Your task to perform on an android device: Empty the shopping cart on ebay. Search for "dell xps" on ebay, select the first entry, add it to the cart, then select checkout. Image 0: 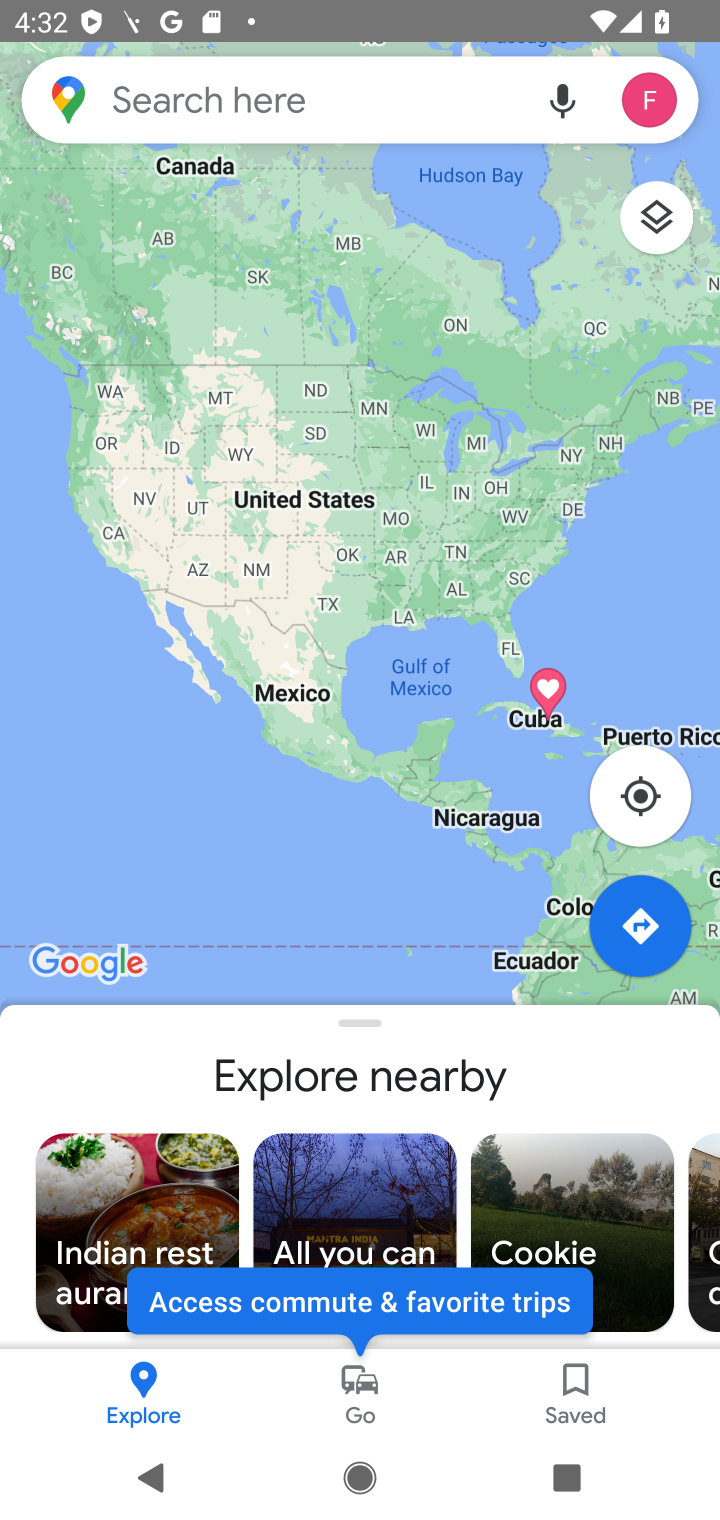
Step 0: press home button
Your task to perform on an android device: Empty the shopping cart on ebay. Search for "dell xps" on ebay, select the first entry, add it to the cart, then select checkout. Image 1: 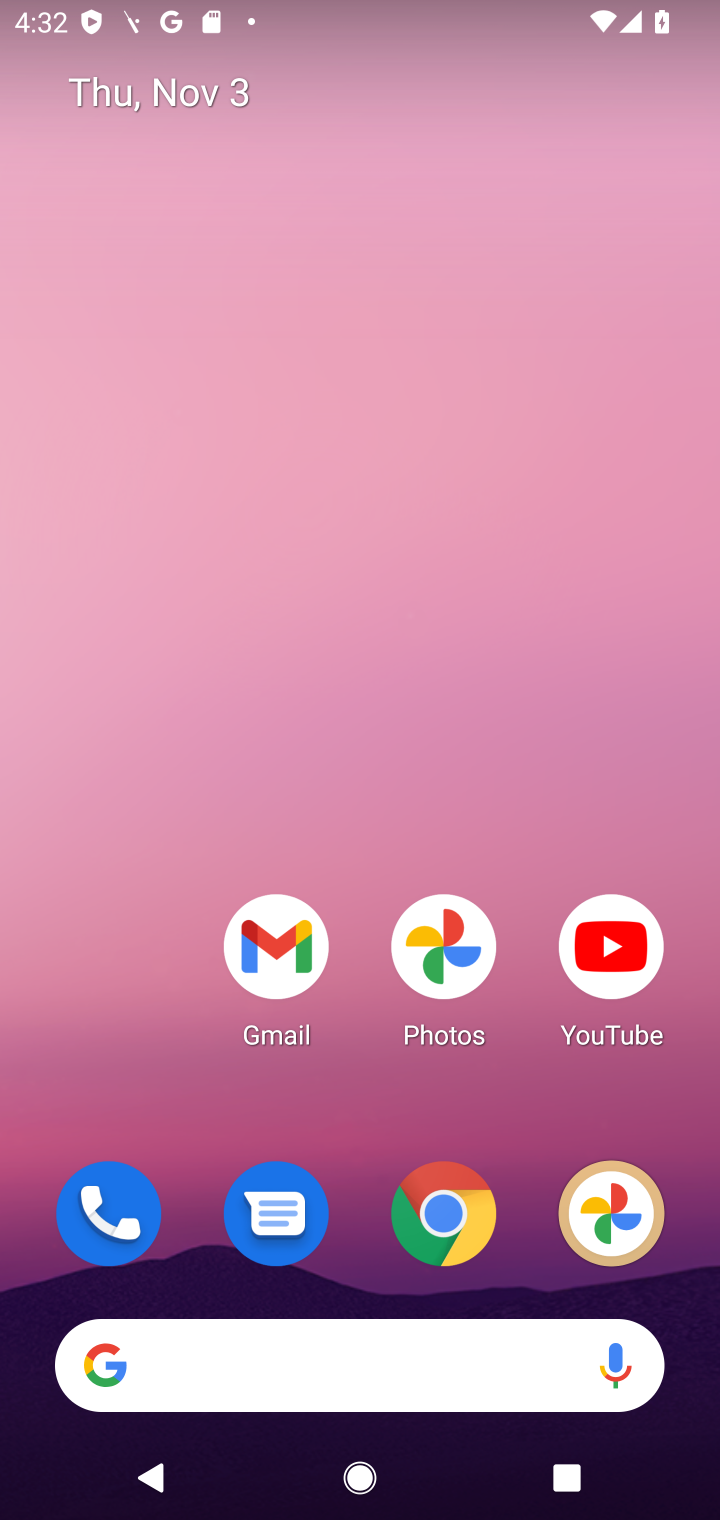
Step 1: click (434, 1213)
Your task to perform on an android device: Empty the shopping cart on ebay. Search for "dell xps" on ebay, select the first entry, add it to the cart, then select checkout. Image 2: 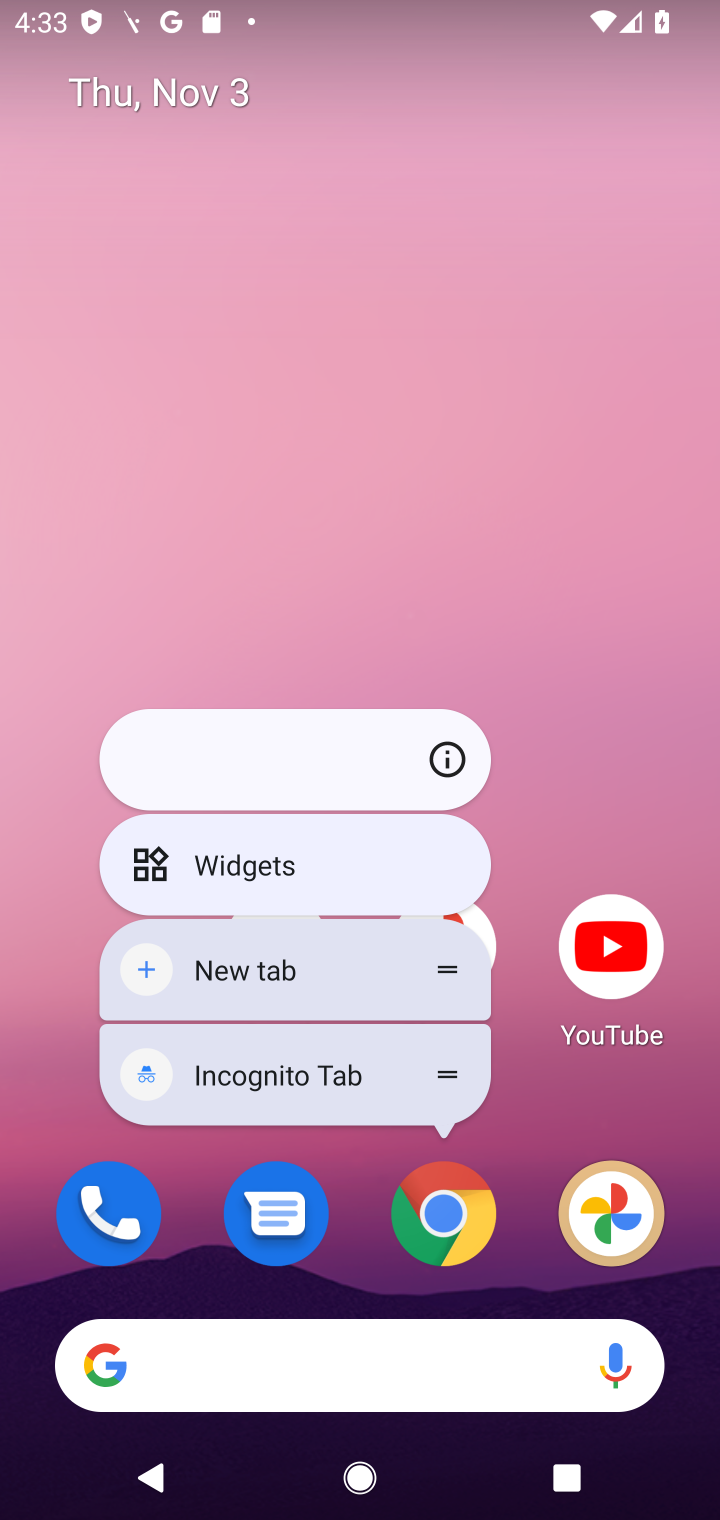
Step 2: click (447, 1229)
Your task to perform on an android device: Empty the shopping cart on ebay. Search for "dell xps" on ebay, select the first entry, add it to the cart, then select checkout. Image 3: 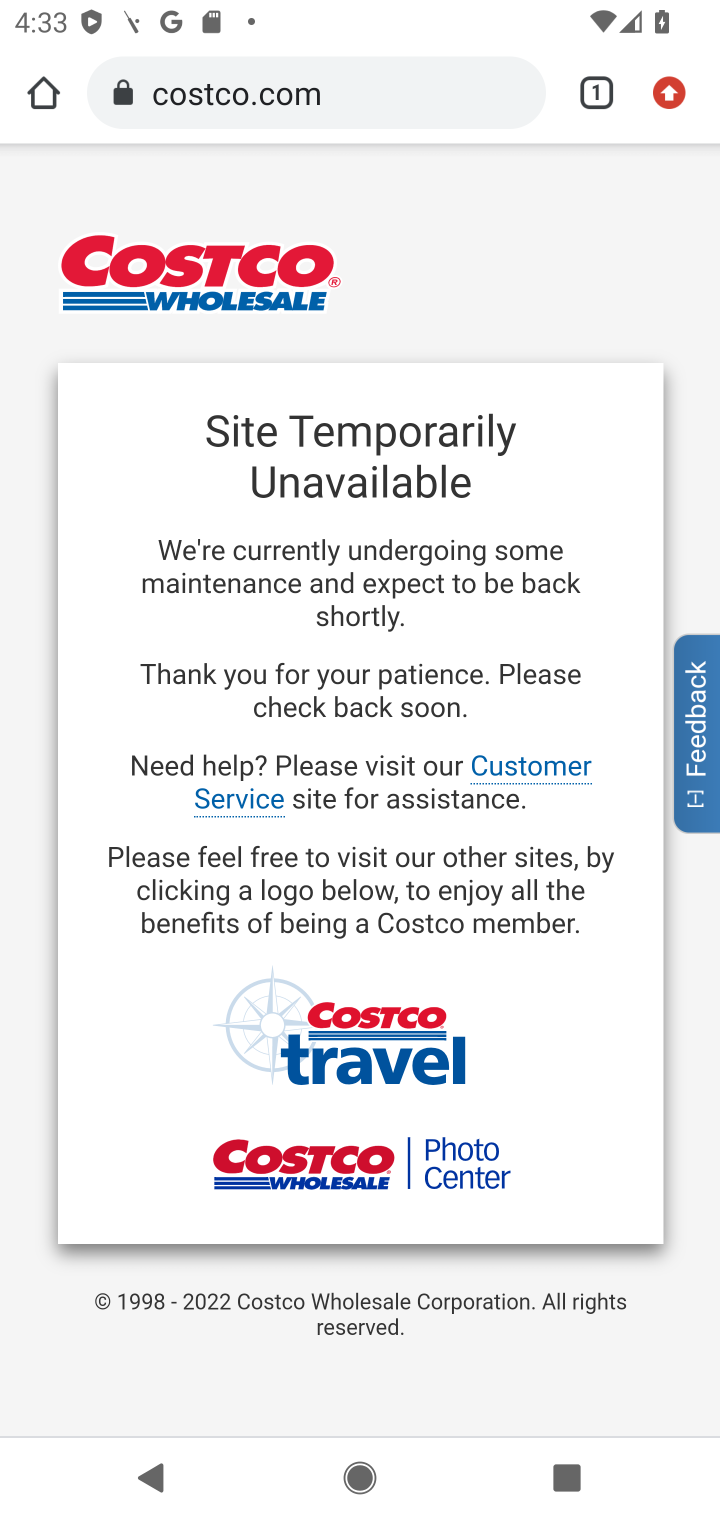
Step 3: click (359, 72)
Your task to perform on an android device: Empty the shopping cart on ebay. Search for "dell xps" on ebay, select the first entry, add it to the cart, then select checkout. Image 4: 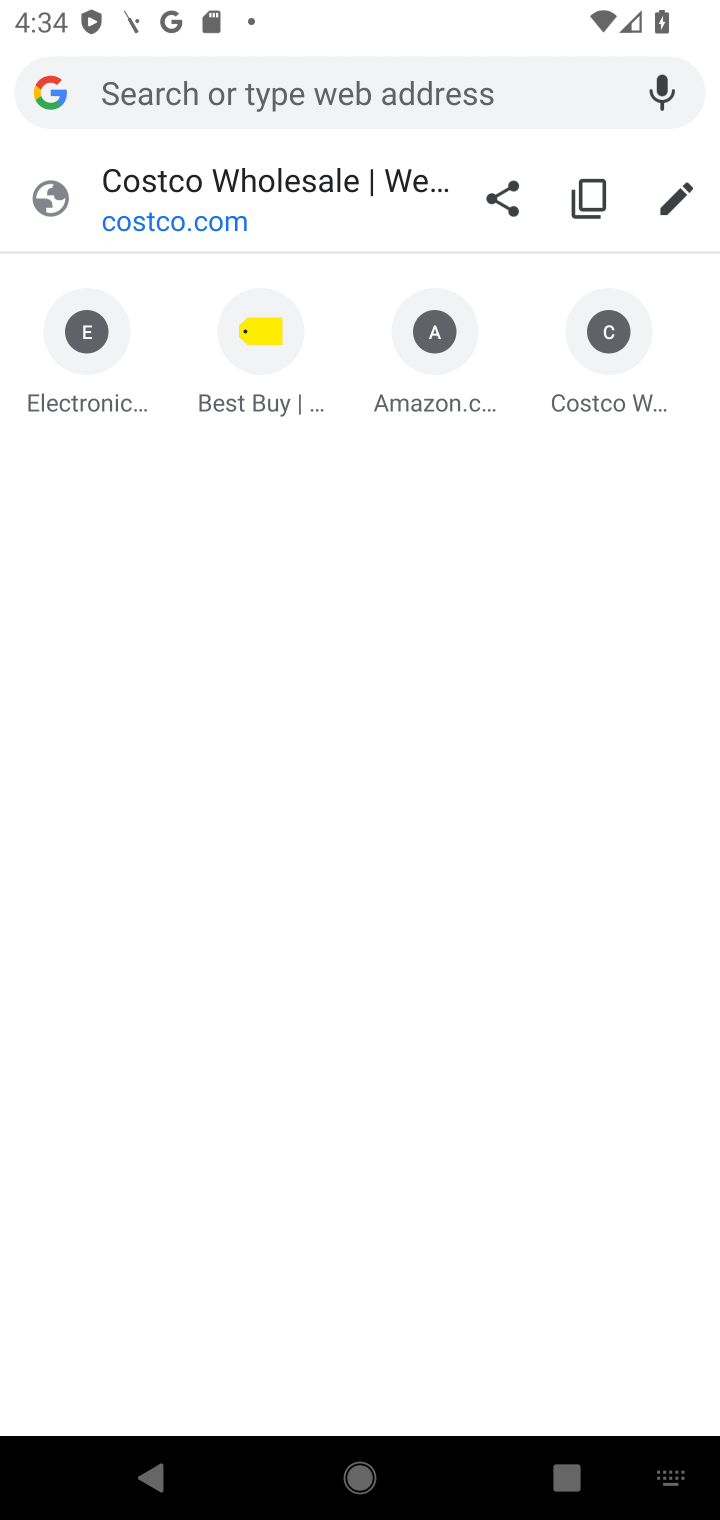
Step 4: type "ebay.com"
Your task to perform on an android device: Empty the shopping cart on ebay. Search for "dell xps" on ebay, select the first entry, add it to the cart, then select checkout. Image 5: 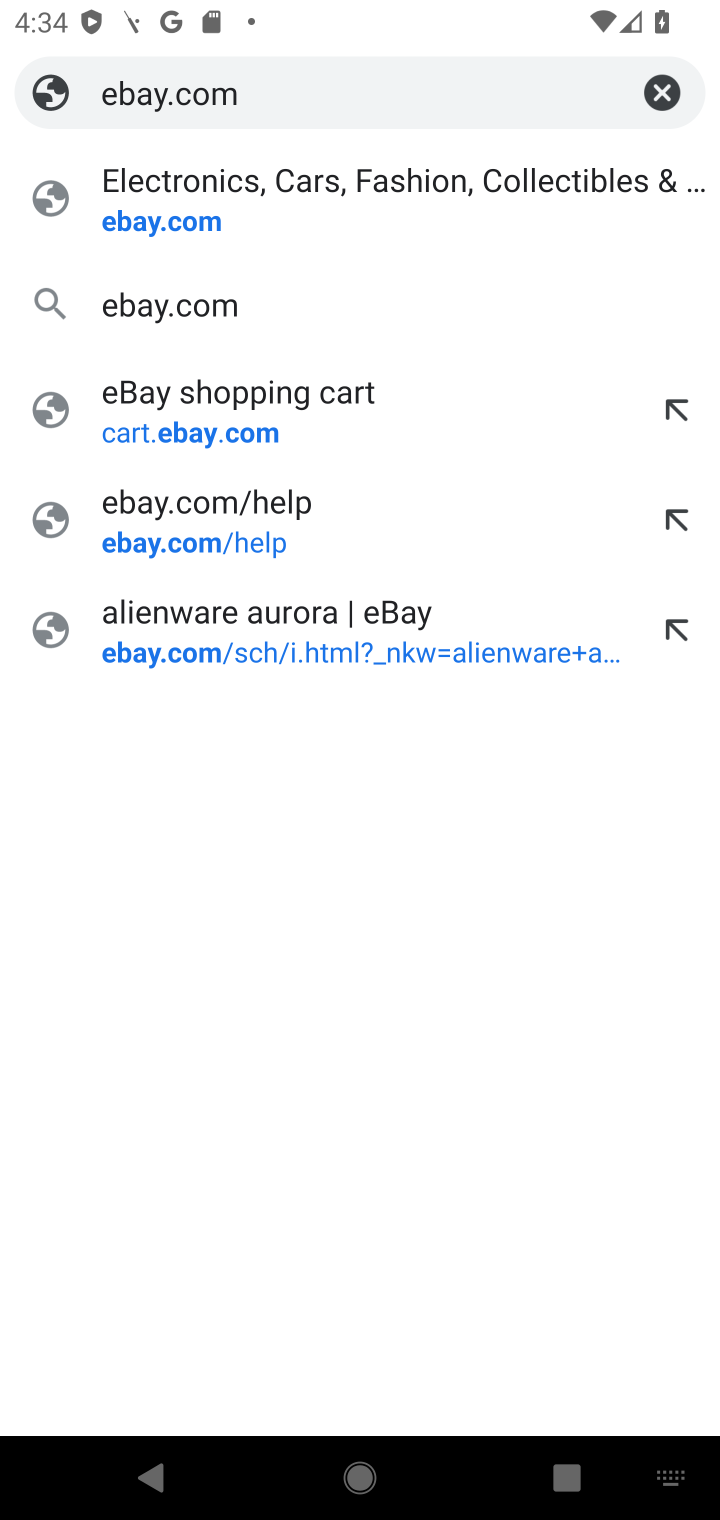
Step 5: click (185, 217)
Your task to perform on an android device: Empty the shopping cart on ebay. Search for "dell xps" on ebay, select the first entry, add it to the cart, then select checkout. Image 6: 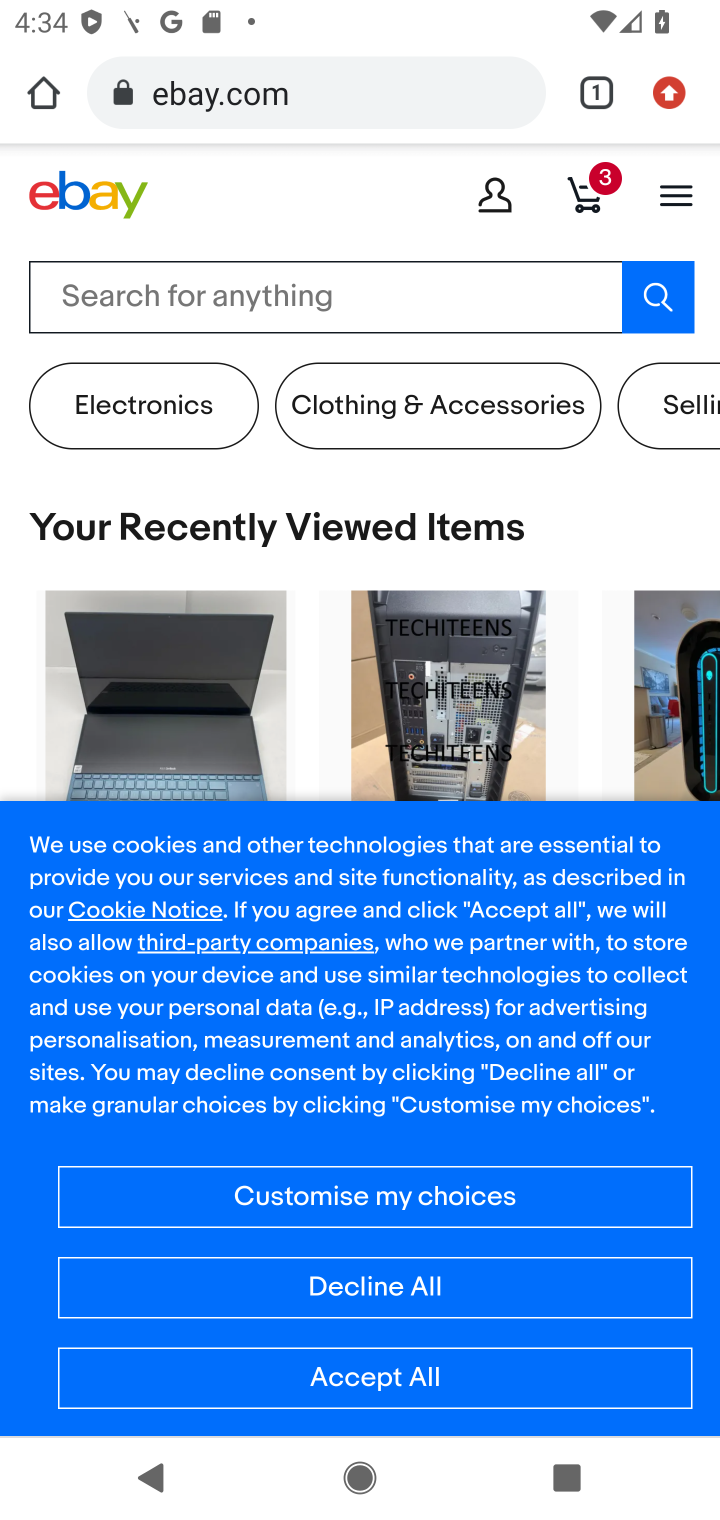
Step 6: click (591, 197)
Your task to perform on an android device: Empty the shopping cart on ebay. Search for "dell xps" on ebay, select the first entry, add it to the cart, then select checkout. Image 7: 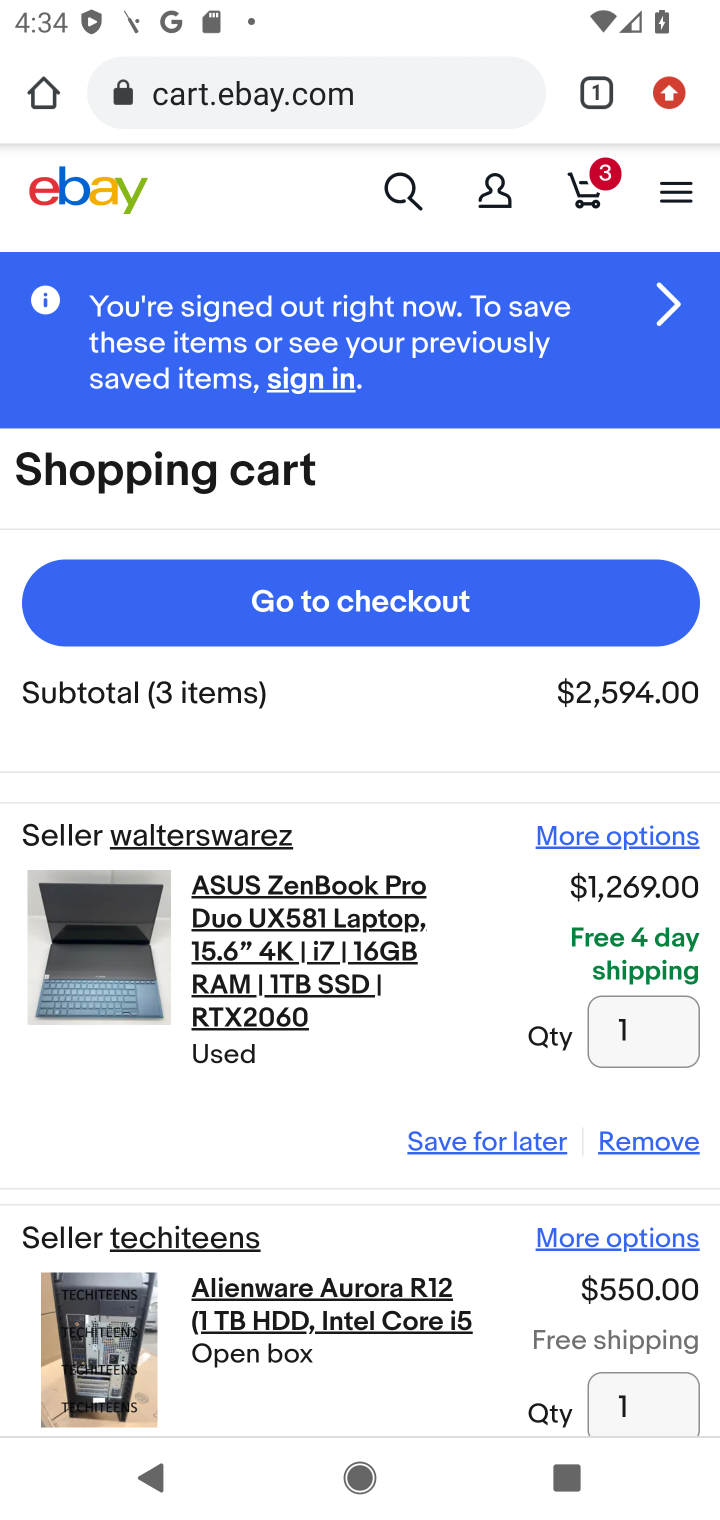
Step 7: click (638, 1144)
Your task to perform on an android device: Empty the shopping cart on ebay. Search for "dell xps" on ebay, select the first entry, add it to the cart, then select checkout. Image 8: 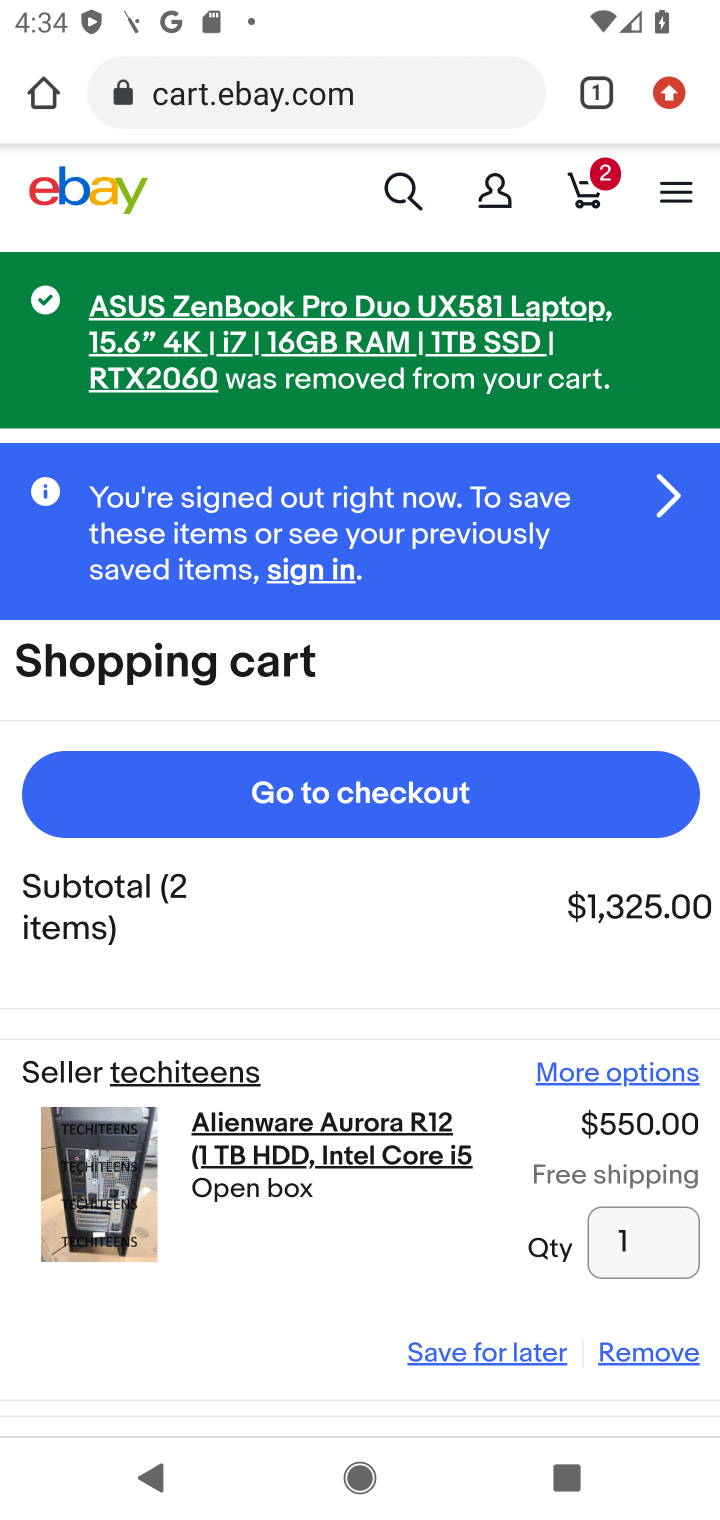
Step 8: click (617, 1352)
Your task to perform on an android device: Empty the shopping cart on ebay. Search for "dell xps" on ebay, select the first entry, add it to the cart, then select checkout. Image 9: 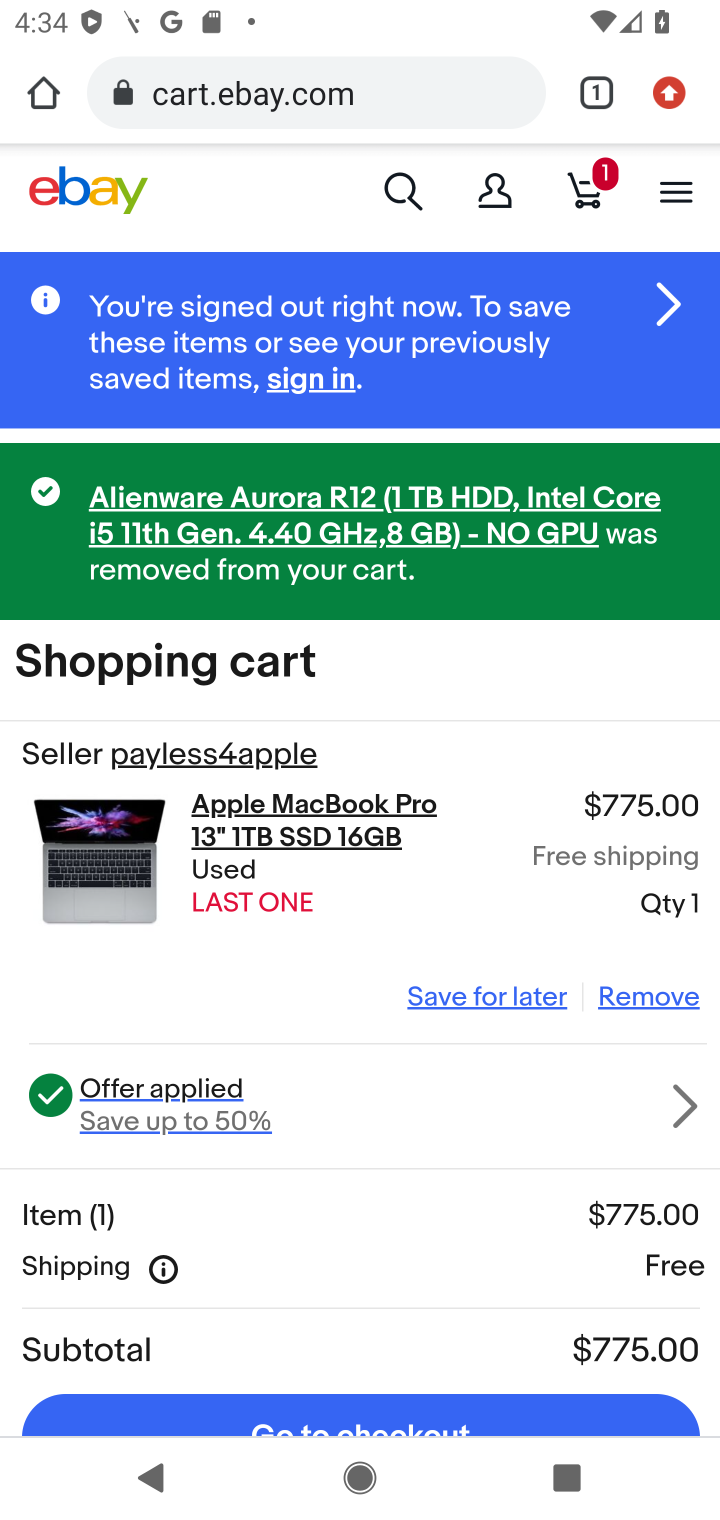
Step 9: click (645, 1003)
Your task to perform on an android device: Empty the shopping cart on ebay. Search for "dell xps" on ebay, select the first entry, add it to the cart, then select checkout. Image 10: 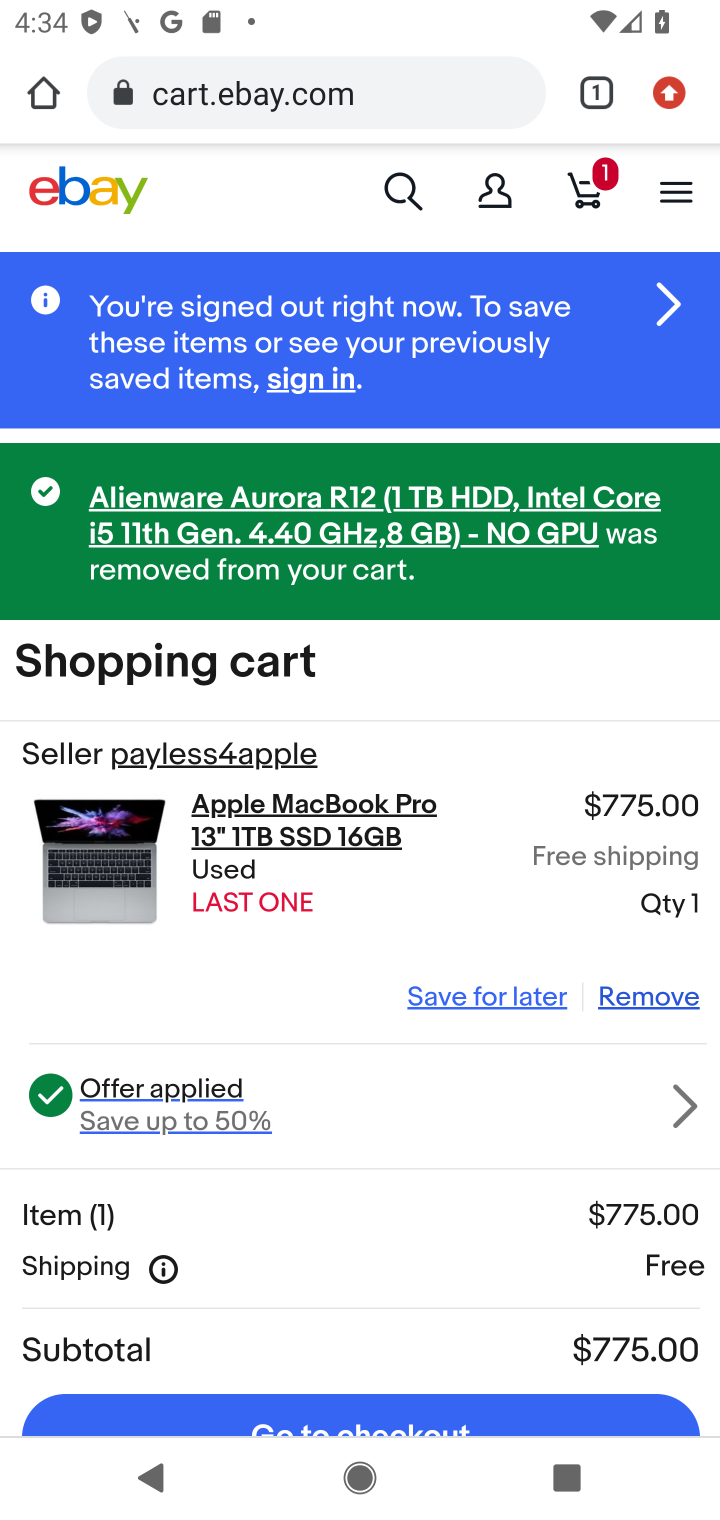
Step 10: click (663, 996)
Your task to perform on an android device: Empty the shopping cart on ebay. Search for "dell xps" on ebay, select the first entry, add it to the cart, then select checkout. Image 11: 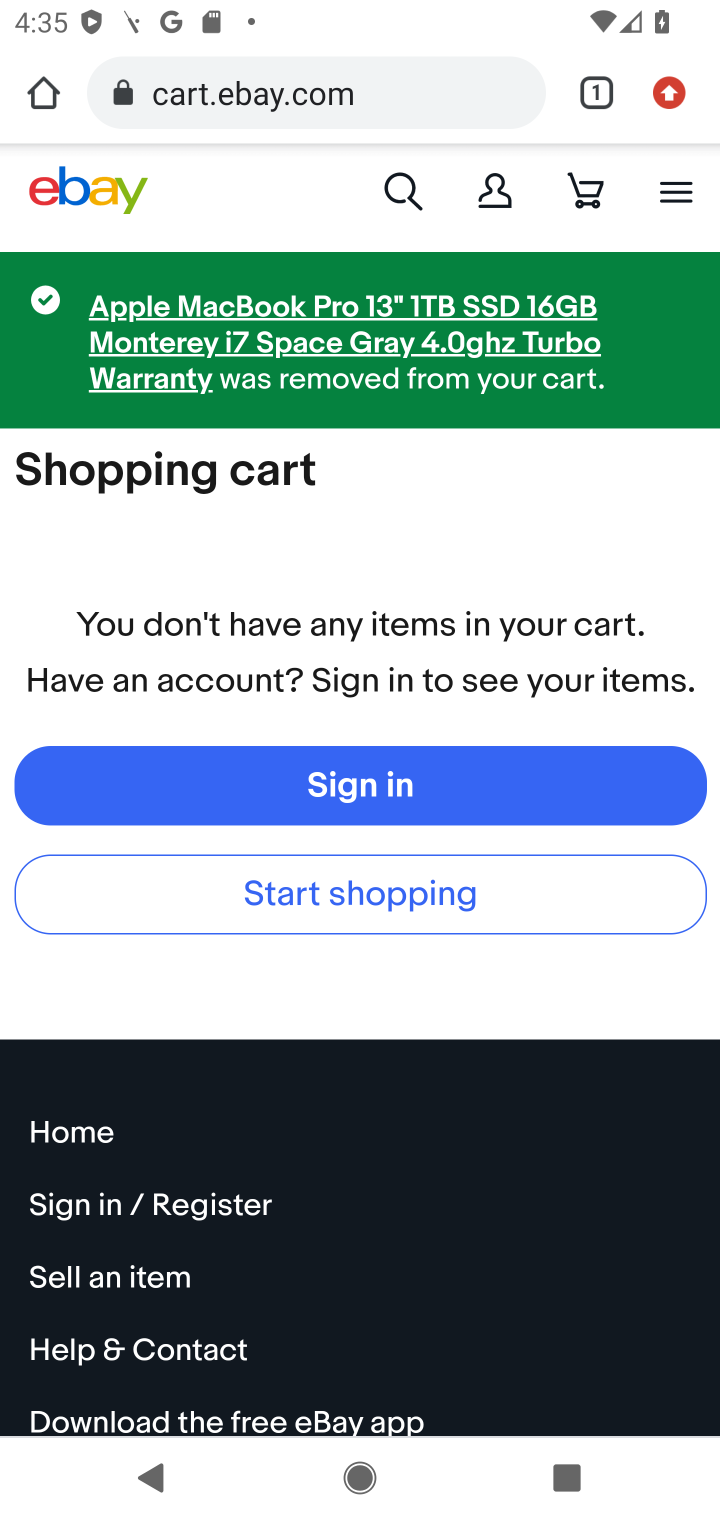
Step 11: click (402, 184)
Your task to perform on an android device: Empty the shopping cart on ebay. Search for "dell xps" on ebay, select the first entry, add it to the cart, then select checkout. Image 12: 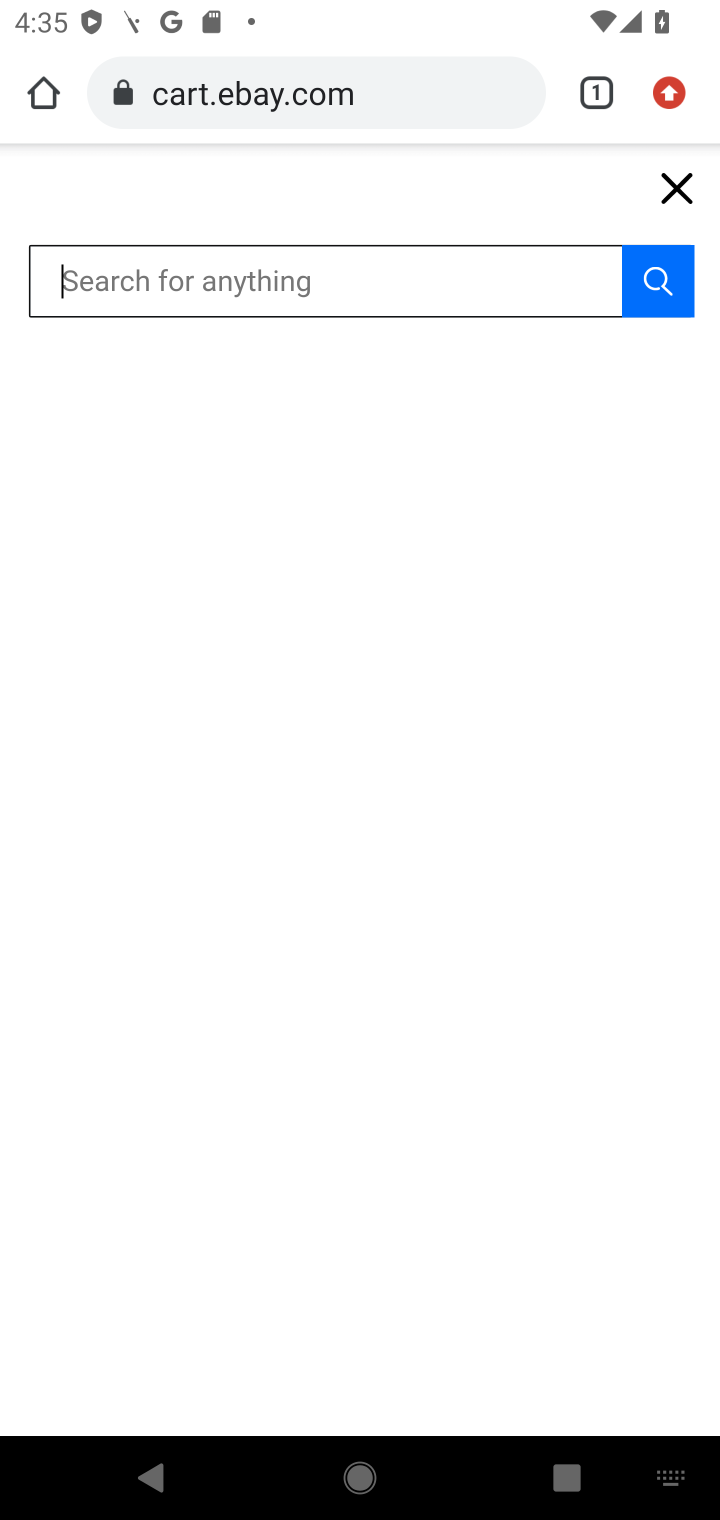
Step 12: type "dell xps"
Your task to perform on an android device: Empty the shopping cart on ebay. Search for "dell xps" on ebay, select the first entry, add it to the cart, then select checkout. Image 13: 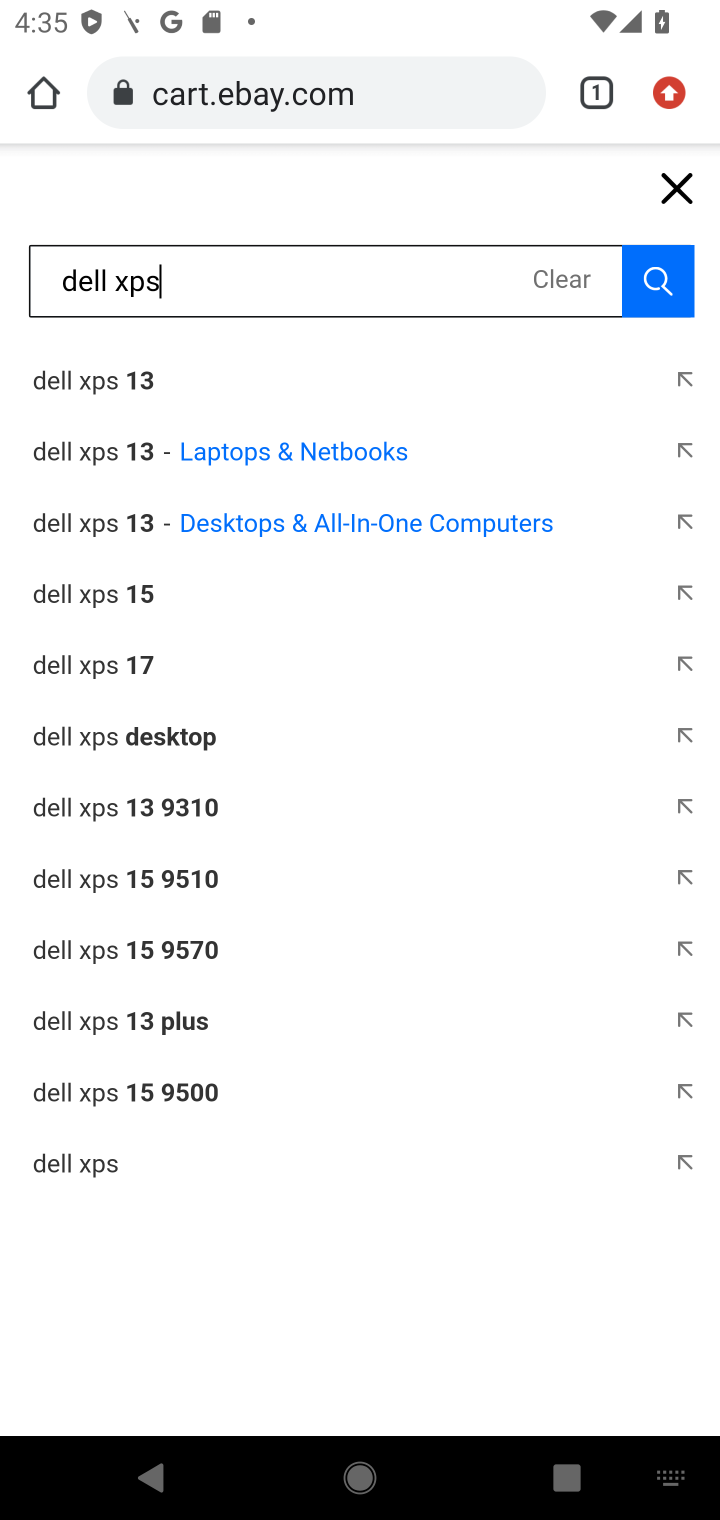
Step 13: click (82, 394)
Your task to perform on an android device: Empty the shopping cart on ebay. Search for "dell xps" on ebay, select the first entry, add it to the cart, then select checkout. Image 14: 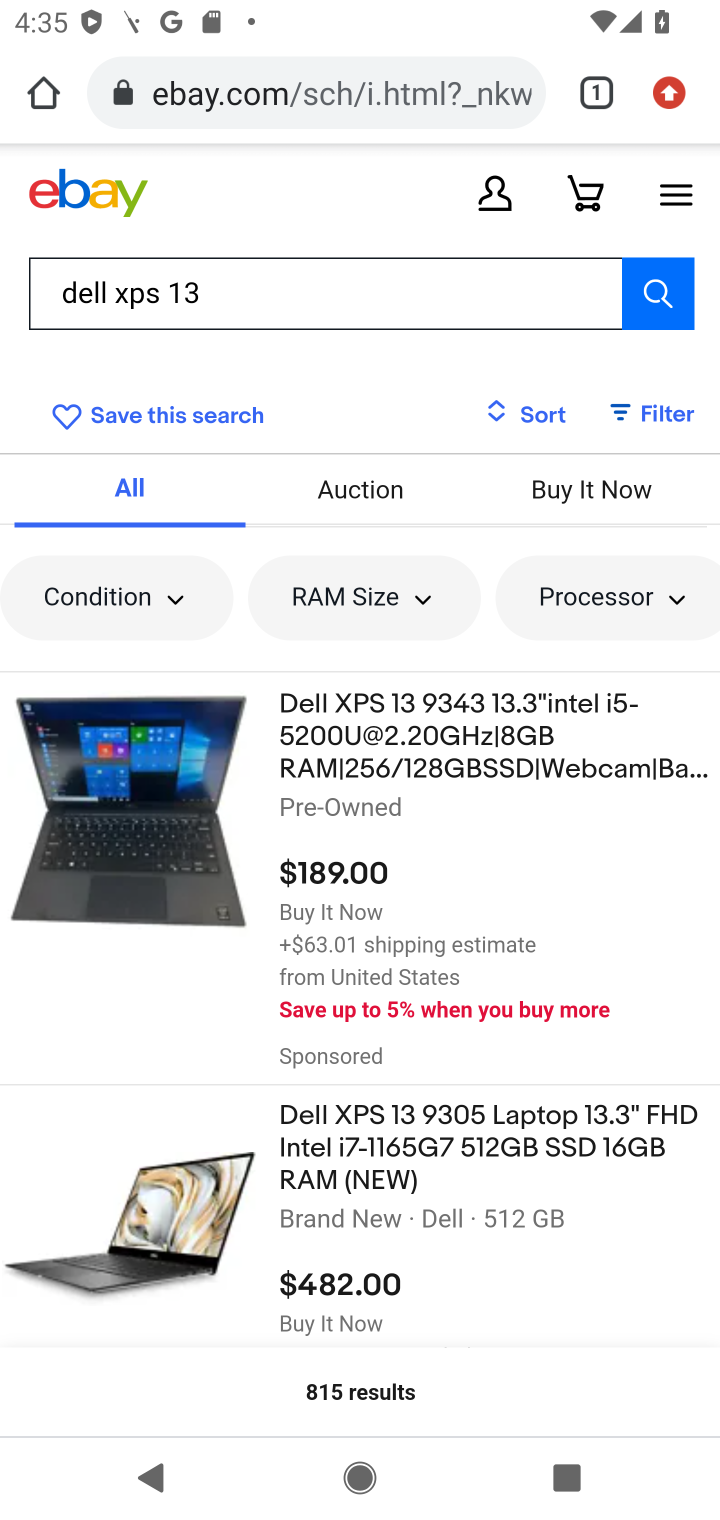
Step 14: click (311, 808)
Your task to perform on an android device: Empty the shopping cart on ebay. Search for "dell xps" on ebay, select the first entry, add it to the cart, then select checkout. Image 15: 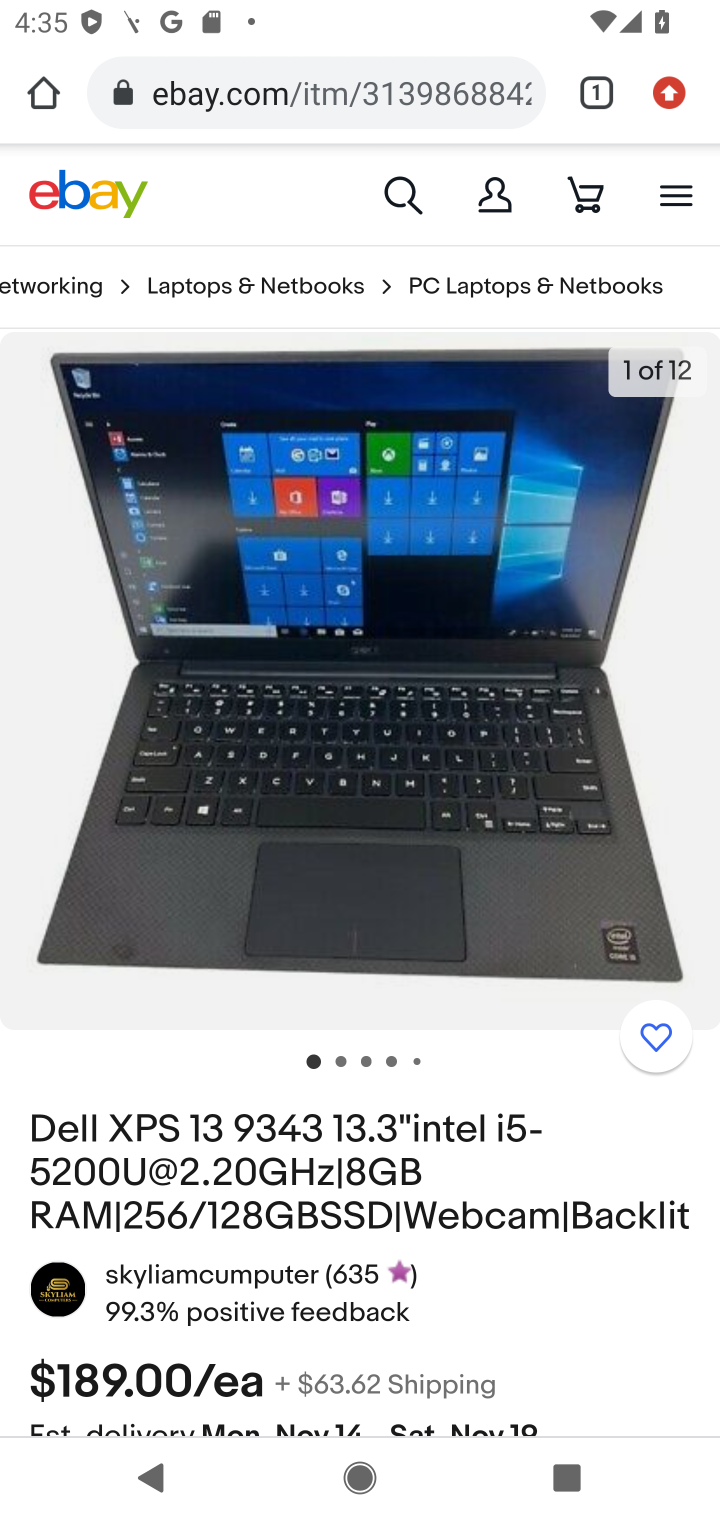
Step 15: drag from (353, 1170) to (351, 469)
Your task to perform on an android device: Empty the shopping cart on ebay. Search for "dell xps" on ebay, select the first entry, add it to the cart, then select checkout. Image 16: 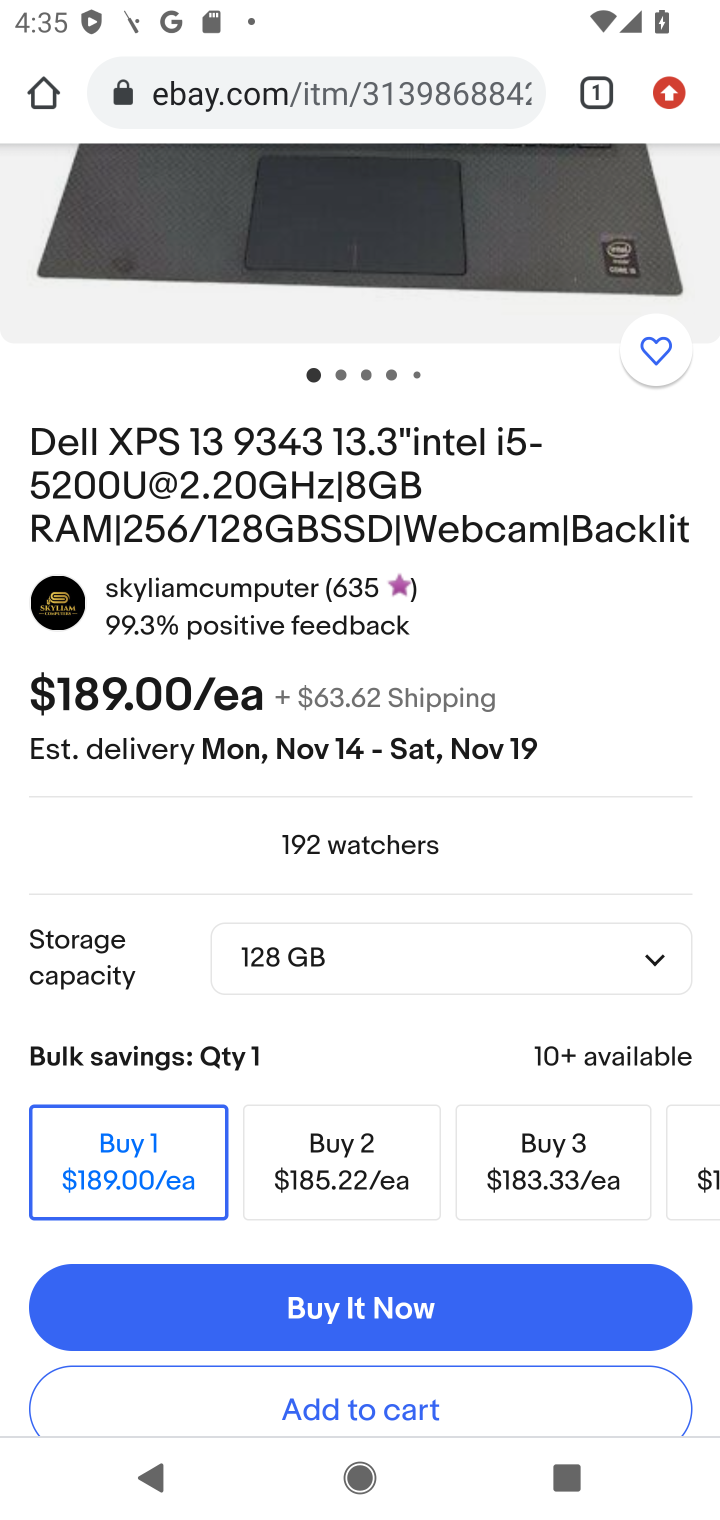
Step 16: drag from (373, 1193) to (392, 647)
Your task to perform on an android device: Empty the shopping cart on ebay. Search for "dell xps" on ebay, select the first entry, add it to the cart, then select checkout. Image 17: 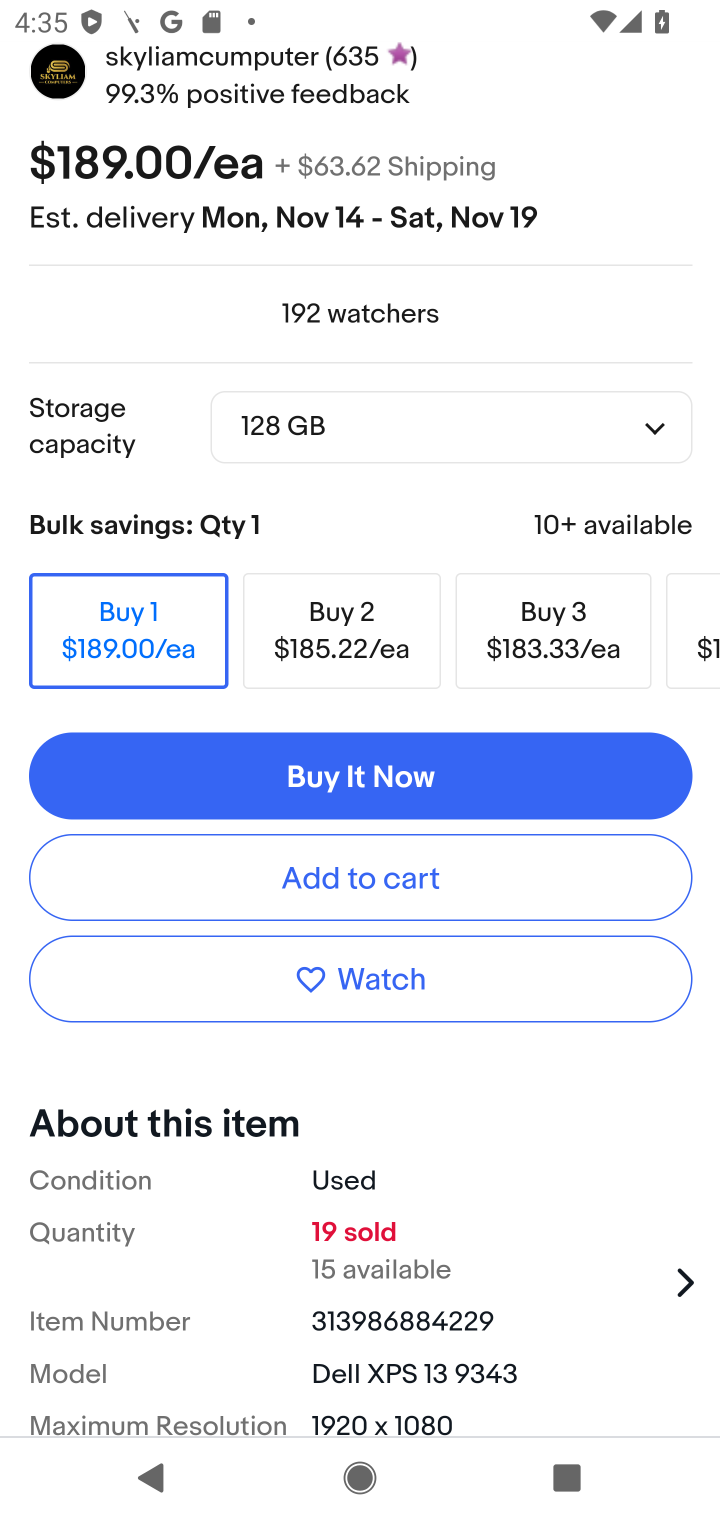
Step 17: click (324, 888)
Your task to perform on an android device: Empty the shopping cart on ebay. Search for "dell xps" on ebay, select the first entry, add it to the cart, then select checkout. Image 18: 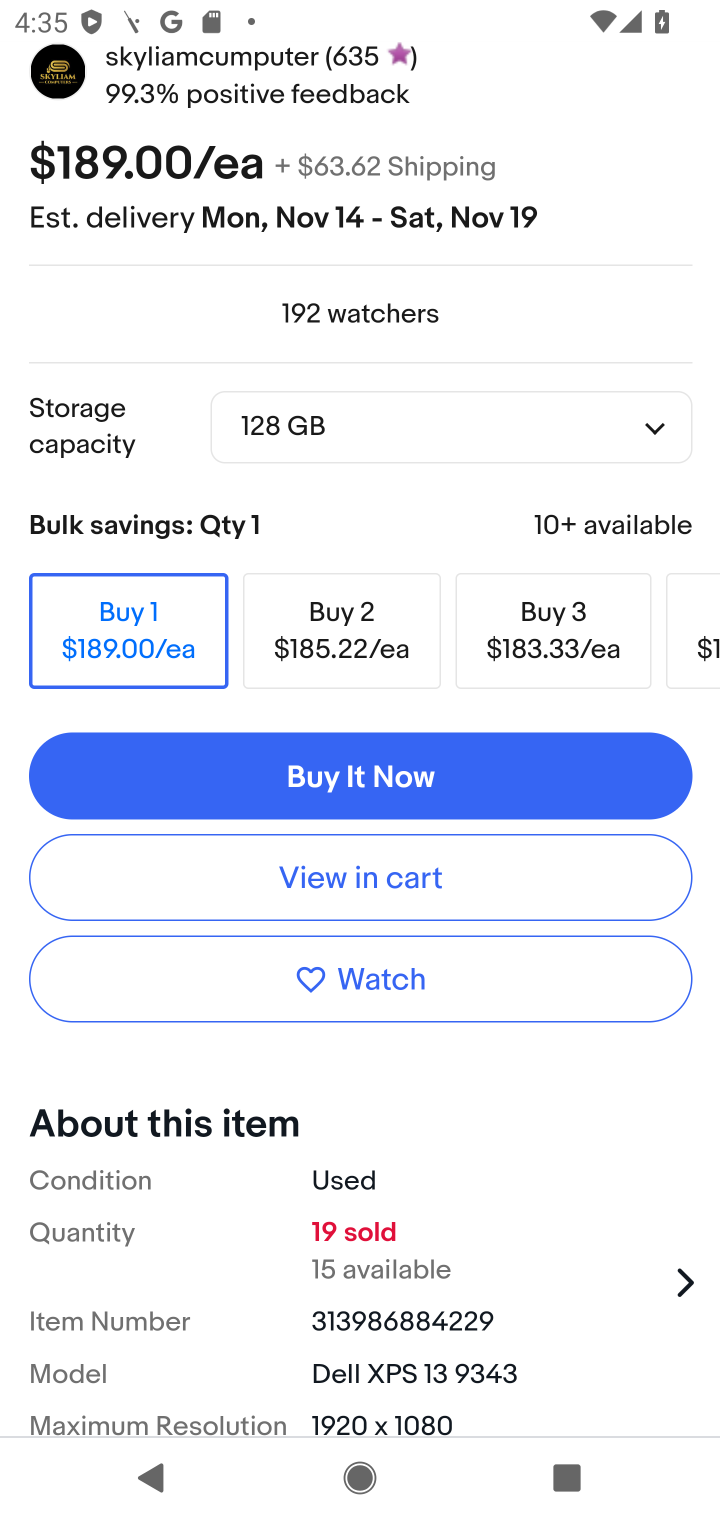
Step 18: click (324, 888)
Your task to perform on an android device: Empty the shopping cart on ebay. Search for "dell xps" on ebay, select the first entry, add it to the cart, then select checkout. Image 19: 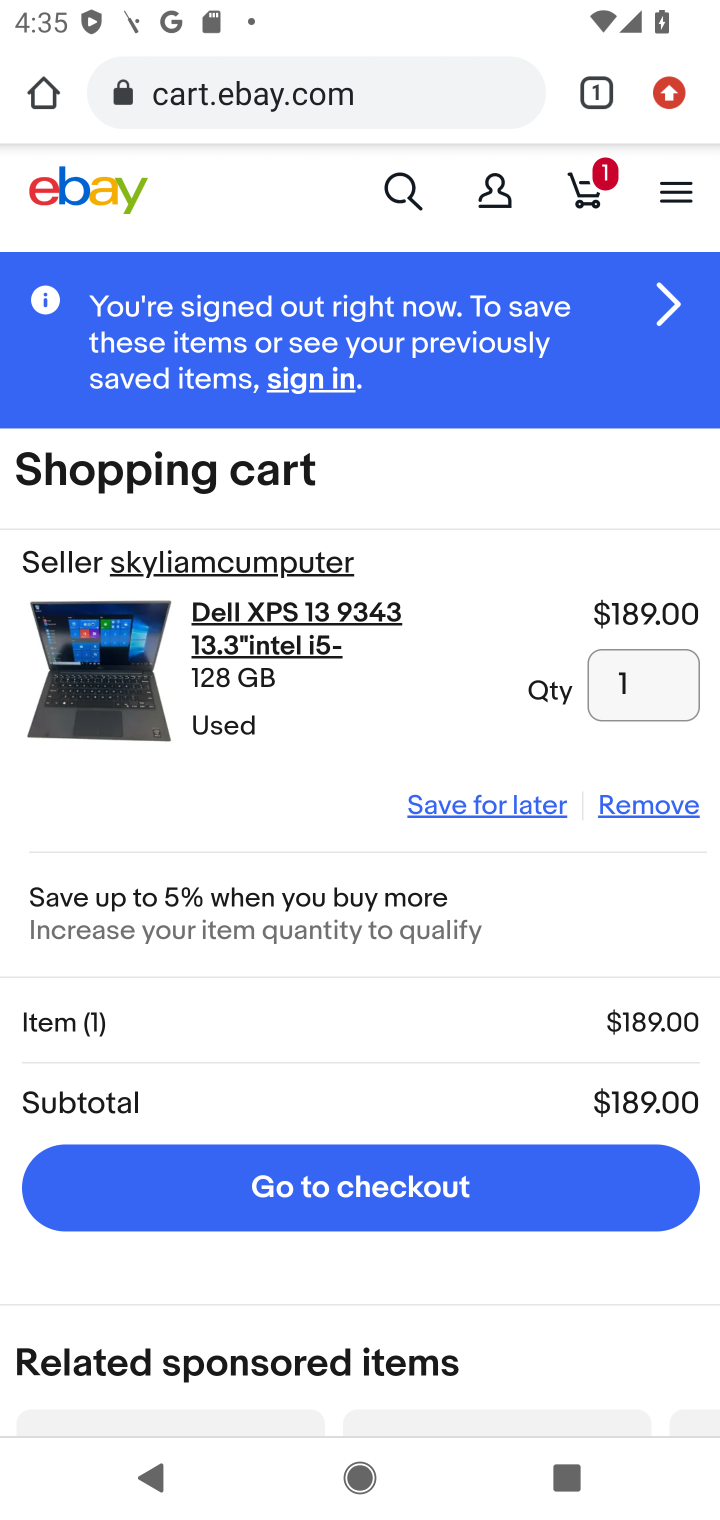
Step 19: click (350, 1197)
Your task to perform on an android device: Empty the shopping cart on ebay. Search for "dell xps" on ebay, select the first entry, add it to the cart, then select checkout. Image 20: 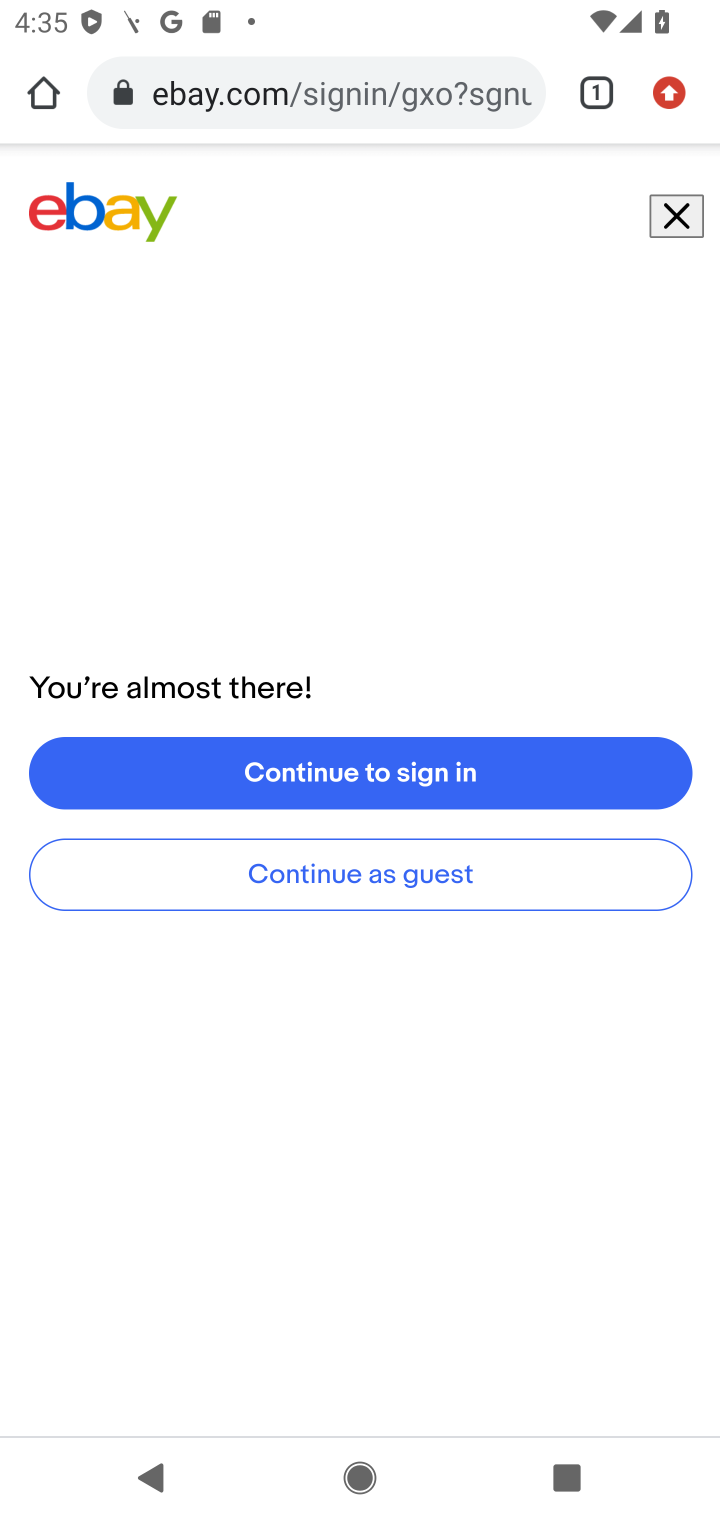
Step 20: task complete